Your task to perform on an android device: Open battery settings Image 0: 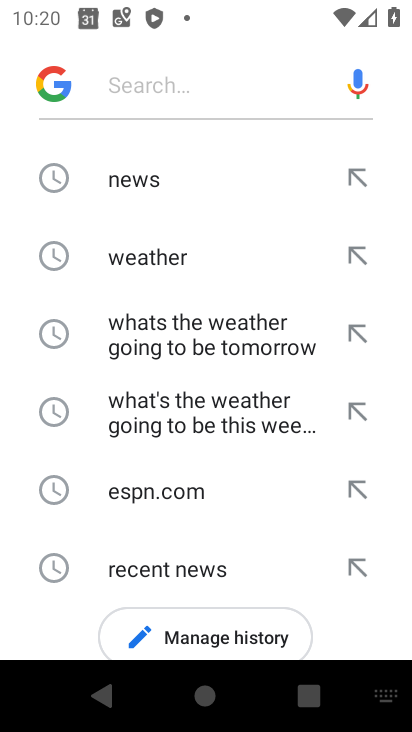
Step 0: press back button
Your task to perform on an android device: Open battery settings Image 1: 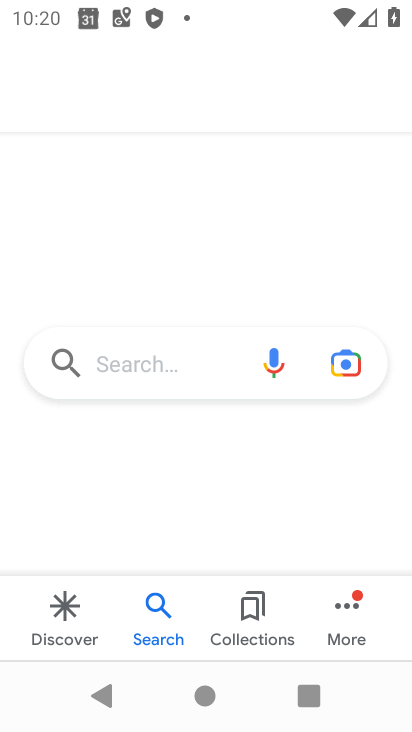
Step 1: press back button
Your task to perform on an android device: Open battery settings Image 2: 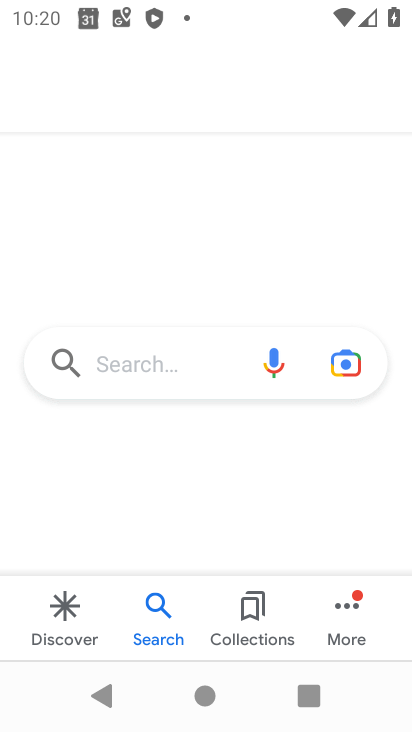
Step 2: press back button
Your task to perform on an android device: Open battery settings Image 3: 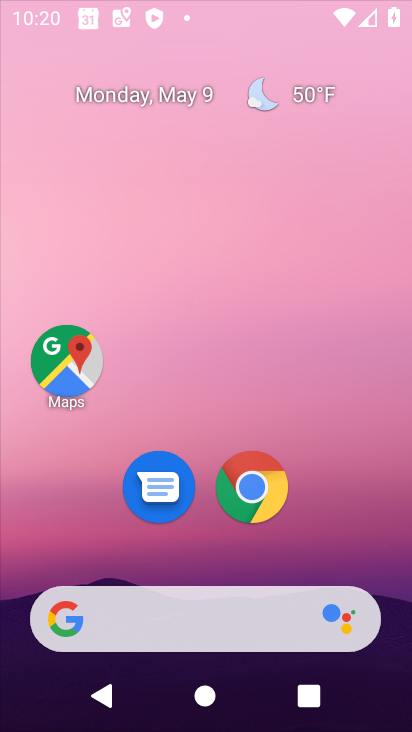
Step 3: press back button
Your task to perform on an android device: Open battery settings Image 4: 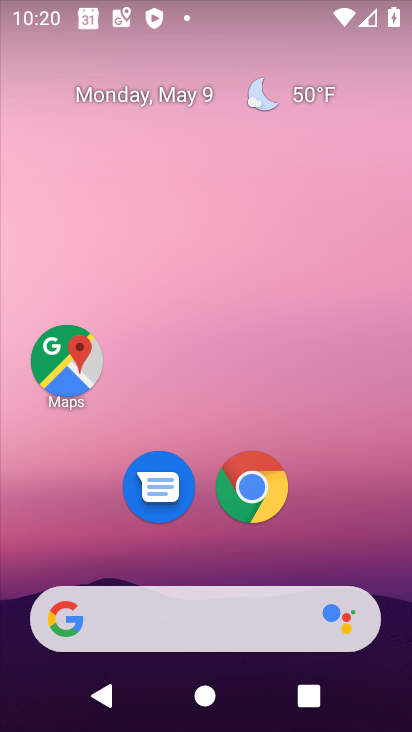
Step 4: drag from (35, 656) to (298, 105)
Your task to perform on an android device: Open battery settings Image 5: 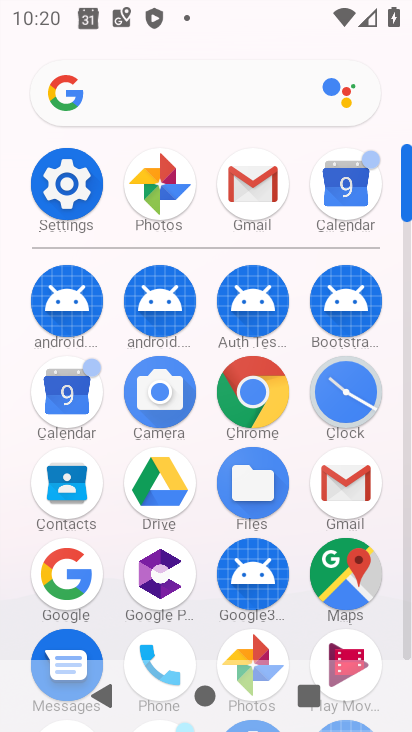
Step 5: click (51, 177)
Your task to perform on an android device: Open battery settings Image 6: 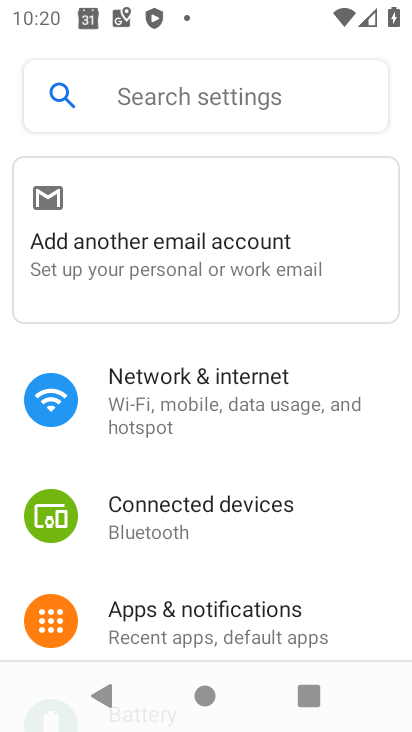
Step 6: drag from (103, 633) to (267, 271)
Your task to perform on an android device: Open battery settings Image 7: 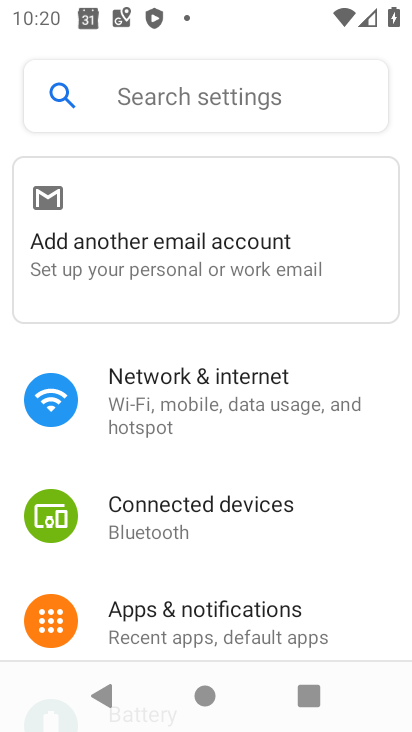
Step 7: drag from (0, 604) to (319, 229)
Your task to perform on an android device: Open battery settings Image 8: 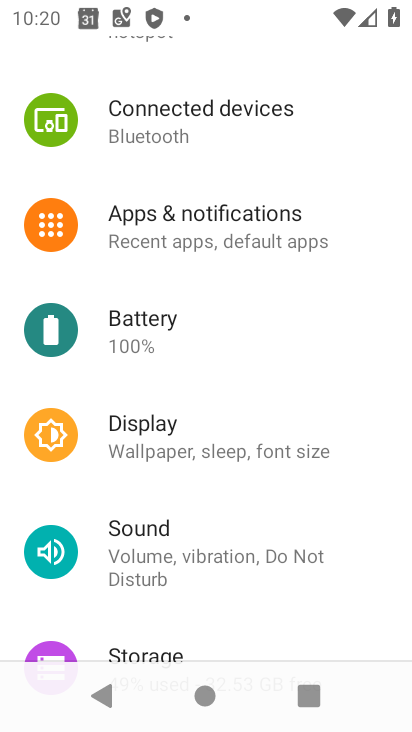
Step 8: click (182, 332)
Your task to perform on an android device: Open battery settings Image 9: 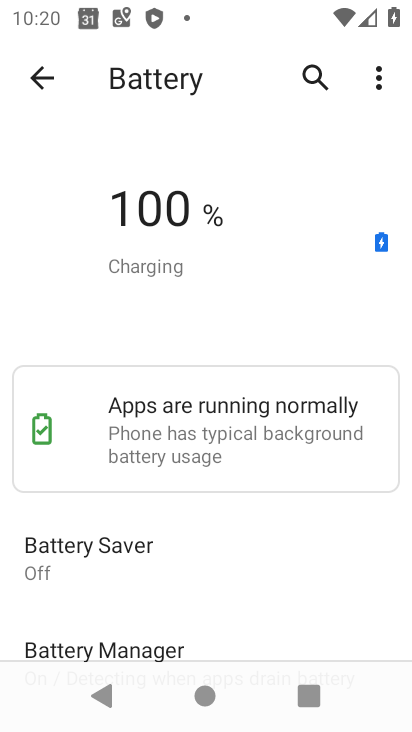
Step 9: task complete